Your task to perform on an android device: open chrome and create a bookmark for the current page Image 0: 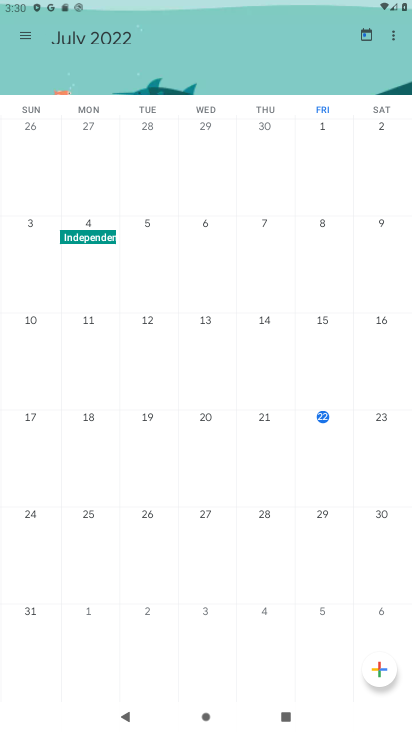
Step 0: task impossible